Your task to perform on an android device: Go to privacy settings Image 0: 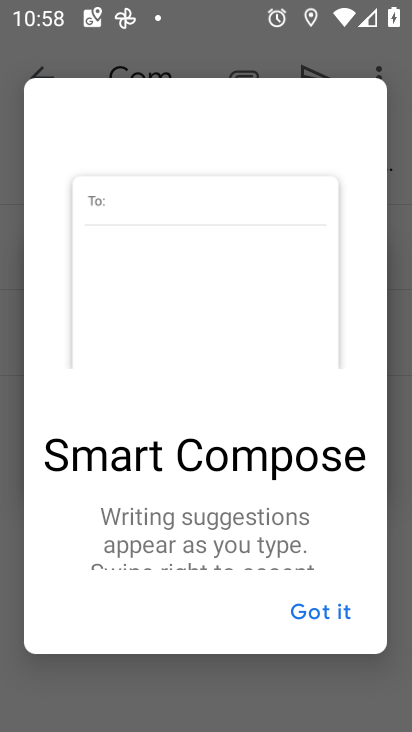
Step 0: drag from (388, 630) to (368, 191)
Your task to perform on an android device: Go to privacy settings Image 1: 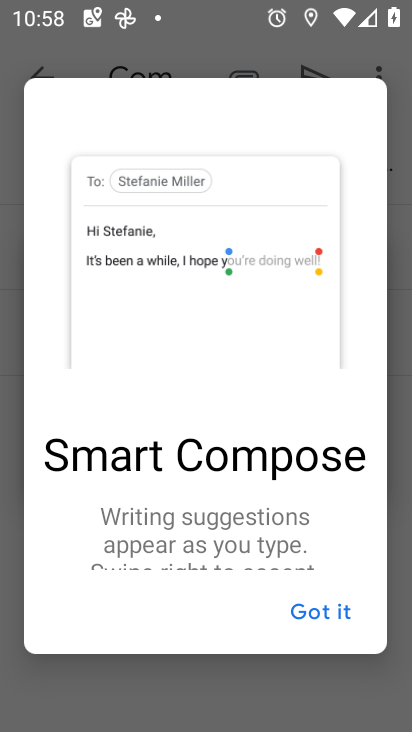
Step 1: press home button
Your task to perform on an android device: Go to privacy settings Image 2: 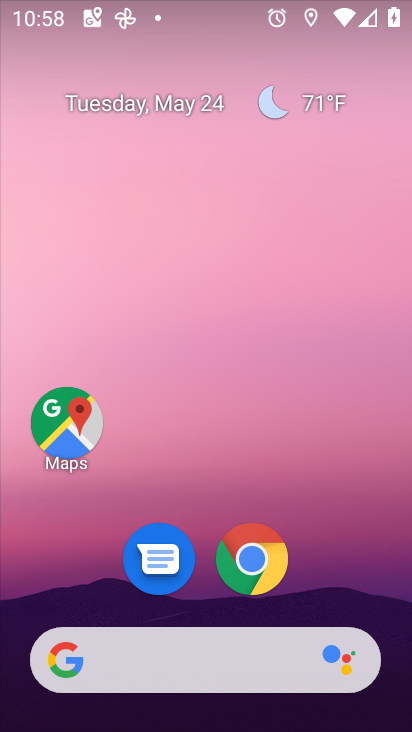
Step 2: drag from (410, 677) to (301, 187)
Your task to perform on an android device: Go to privacy settings Image 3: 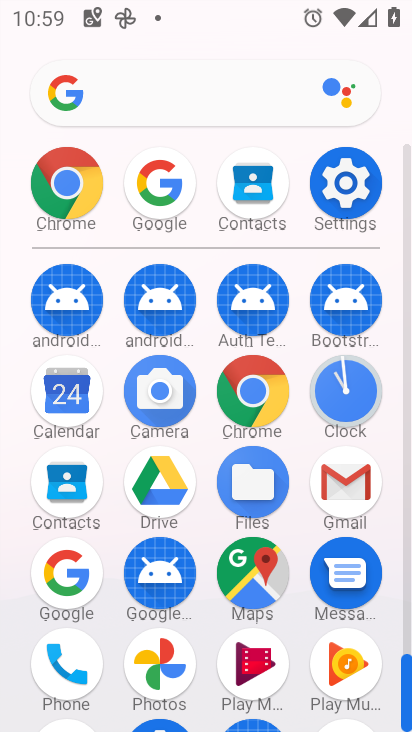
Step 3: click (328, 183)
Your task to perform on an android device: Go to privacy settings Image 4: 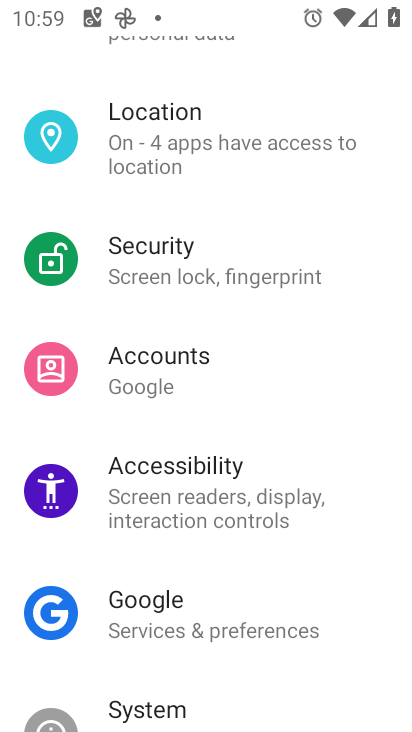
Step 4: drag from (159, 613) to (70, 169)
Your task to perform on an android device: Go to privacy settings Image 5: 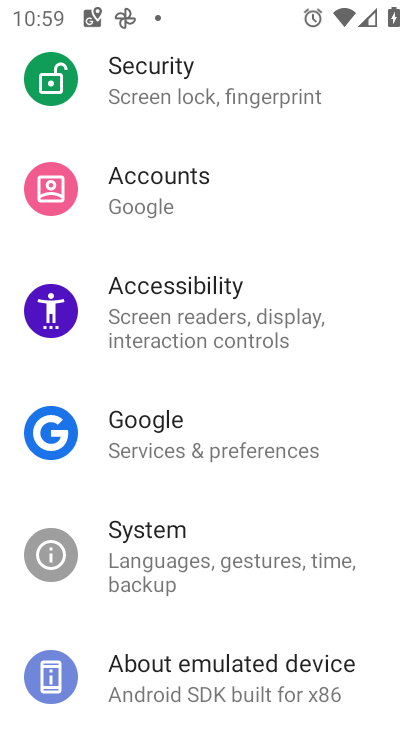
Step 5: drag from (193, 152) to (158, 597)
Your task to perform on an android device: Go to privacy settings Image 6: 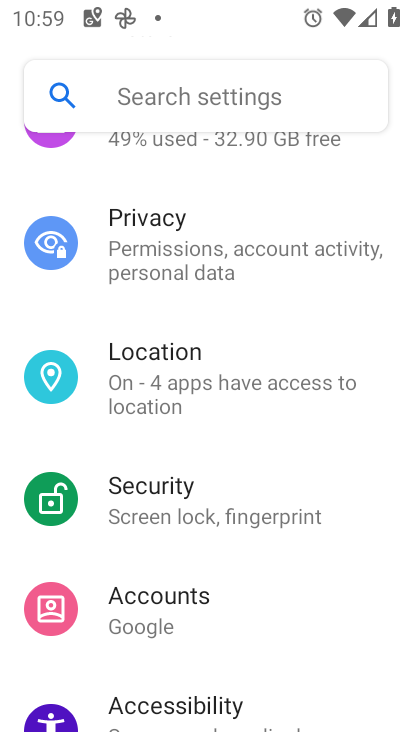
Step 6: click (202, 265)
Your task to perform on an android device: Go to privacy settings Image 7: 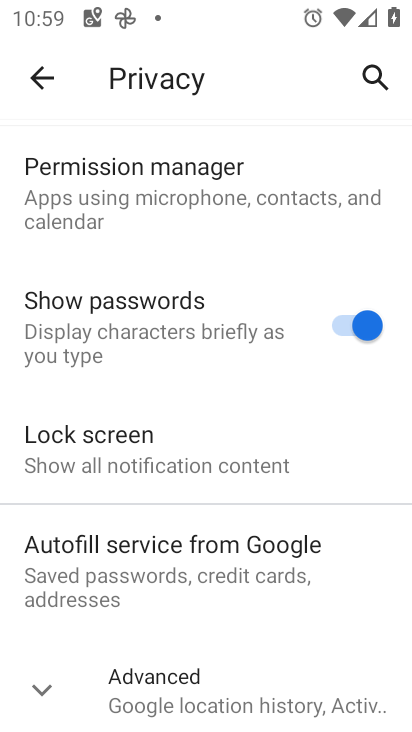
Step 7: task complete